Your task to perform on an android device: What's the news in Vietnam? Image 0: 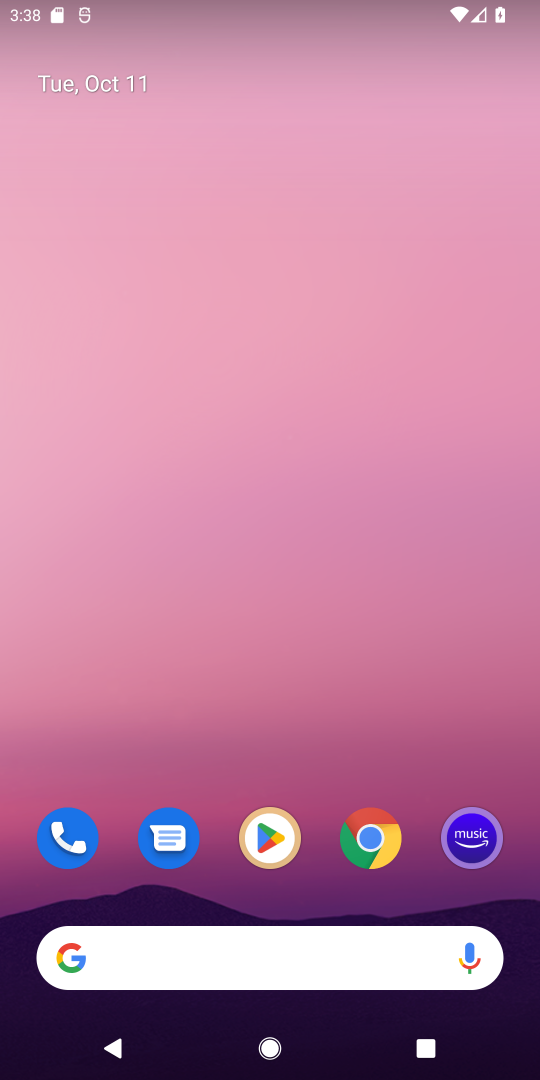
Step 0: click (356, 855)
Your task to perform on an android device: What's the news in Vietnam? Image 1: 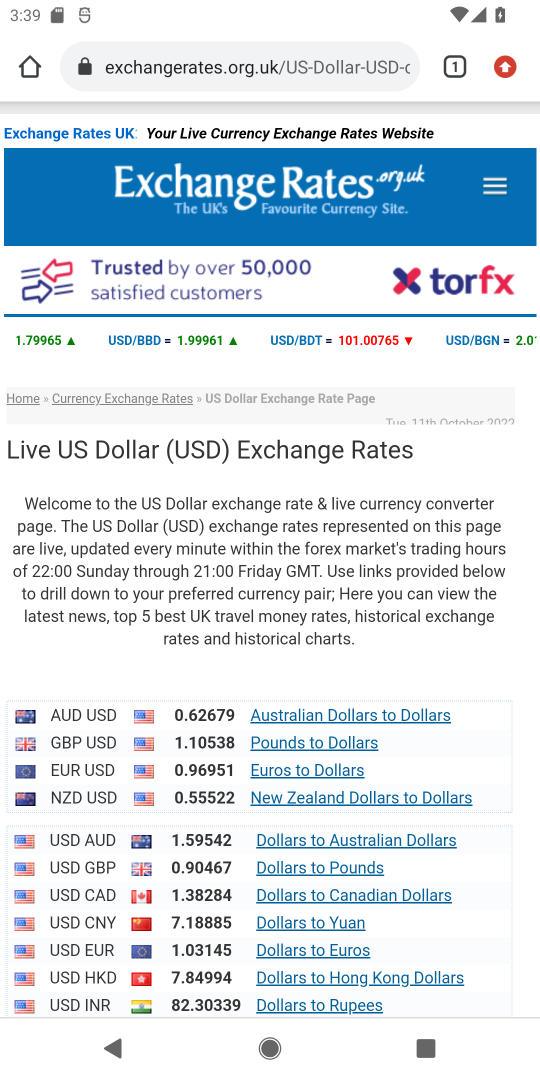
Step 1: click (250, 56)
Your task to perform on an android device: What's the news in Vietnam? Image 2: 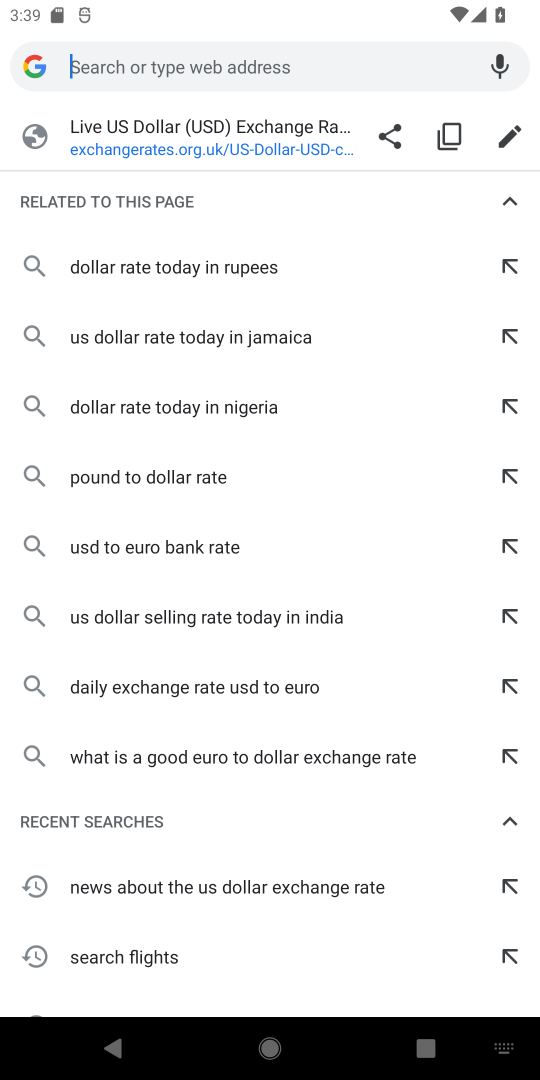
Step 2: type "news in vietnam"
Your task to perform on an android device: What's the news in Vietnam? Image 3: 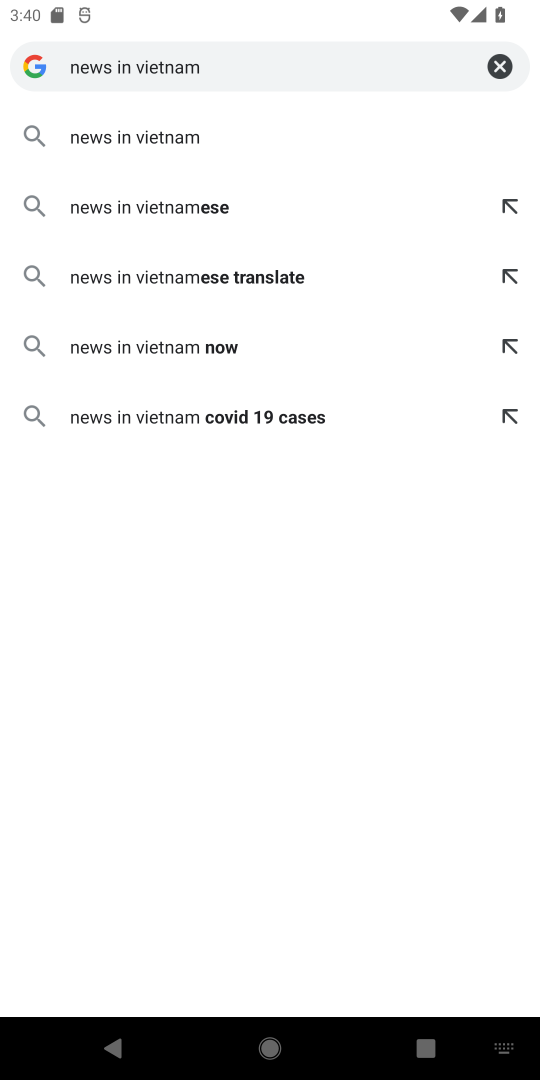
Step 3: click (163, 135)
Your task to perform on an android device: What's the news in Vietnam? Image 4: 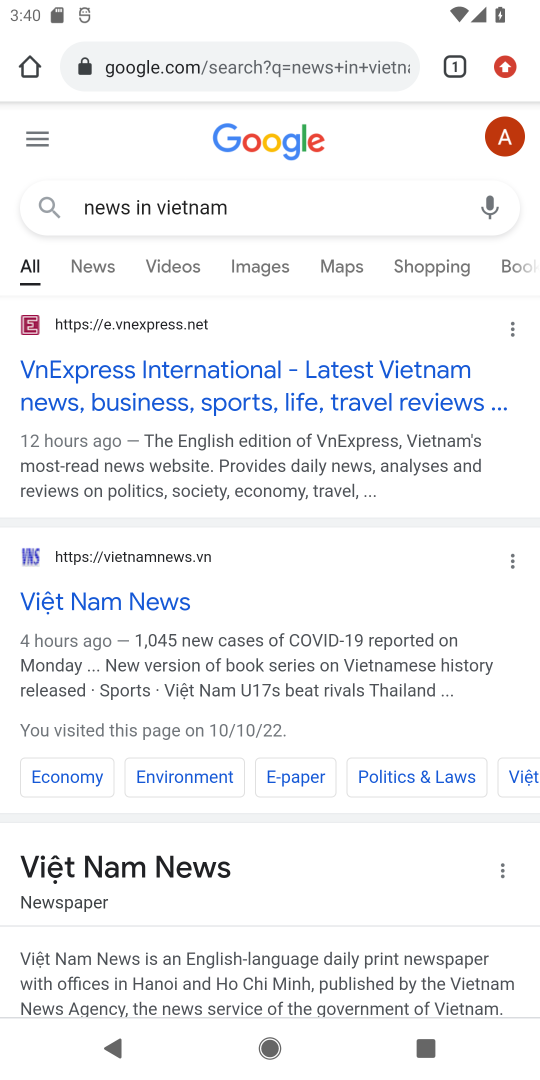
Step 4: drag from (247, 463) to (237, 284)
Your task to perform on an android device: What's the news in Vietnam? Image 5: 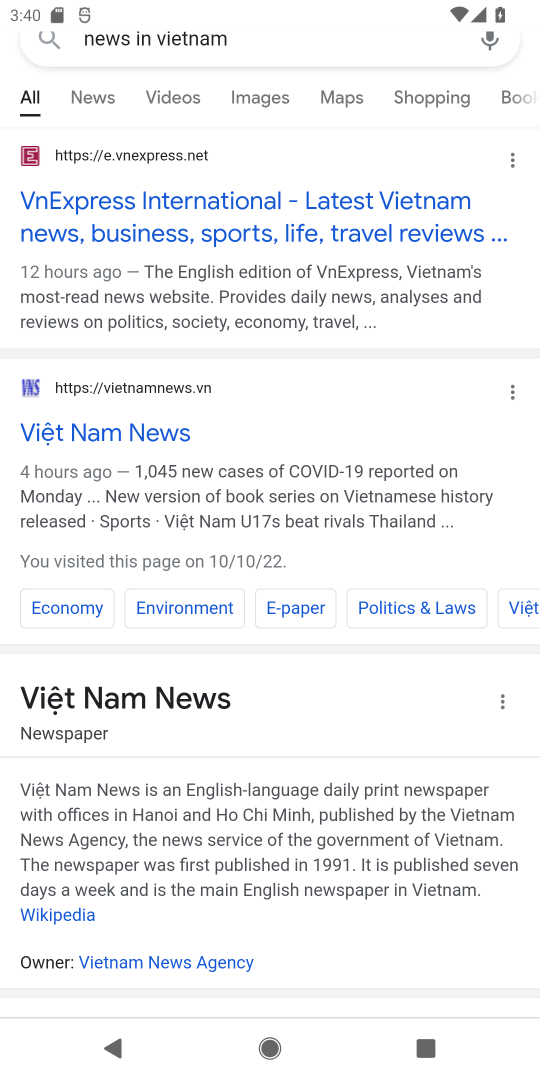
Step 5: drag from (163, 843) to (207, 359)
Your task to perform on an android device: What's the news in Vietnam? Image 6: 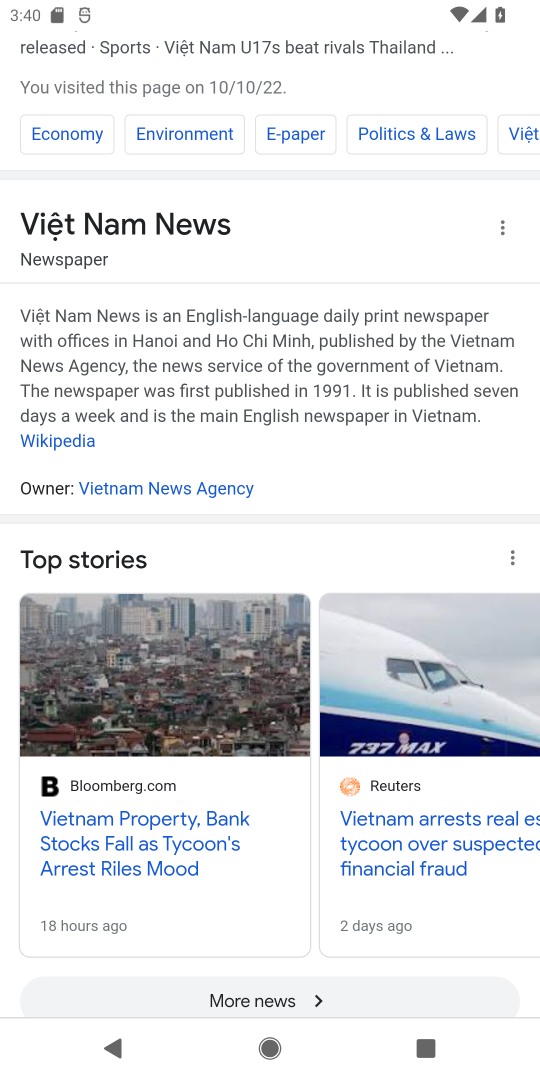
Step 6: click (289, 349)
Your task to perform on an android device: What's the news in Vietnam? Image 7: 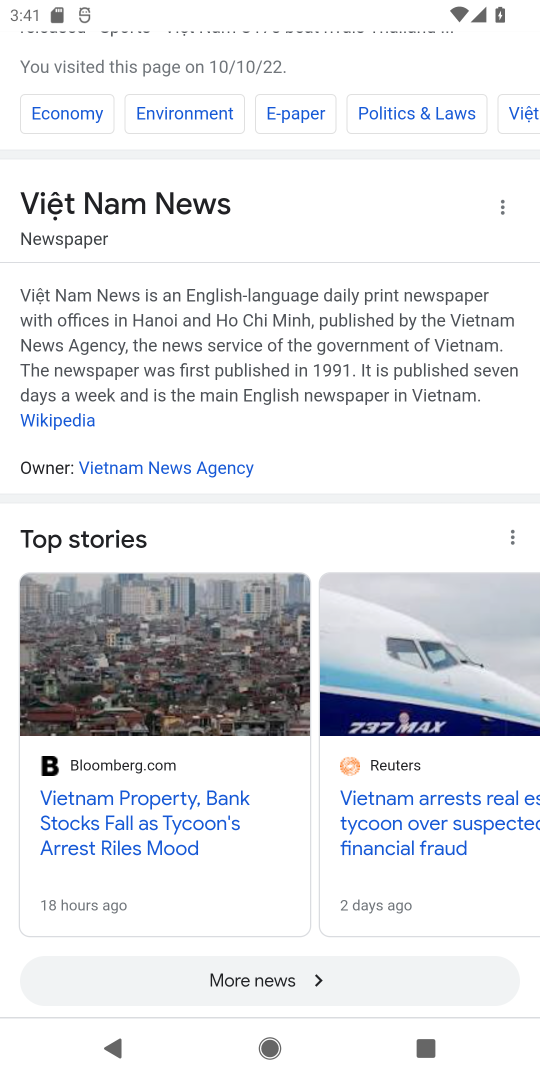
Step 7: drag from (202, 565) to (236, 238)
Your task to perform on an android device: What's the news in Vietnam? Image 8: 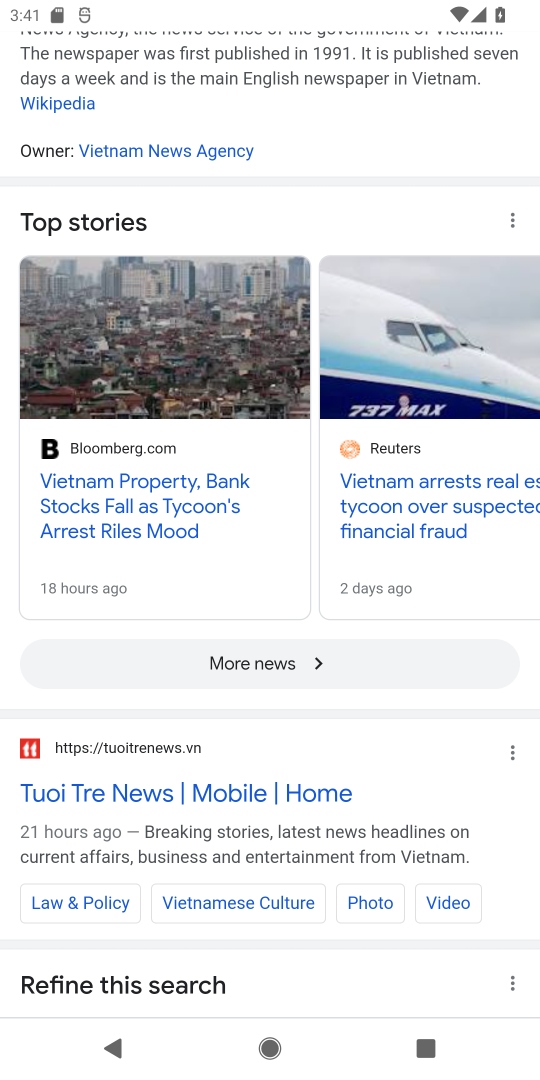
Step 8: drag from (160, 287) to (173, 999)
Your task to perform on an android device: What's the news in Vietnam? Image 9: 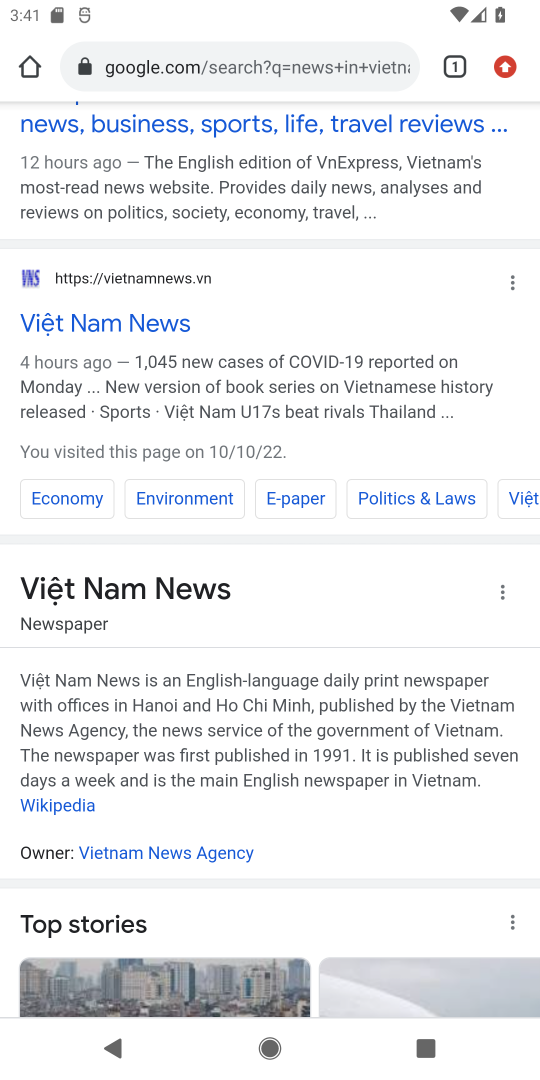
Step 9: click (222, 844)
Your task to perform on an android device: What's the news in Vietnam? Image 10: 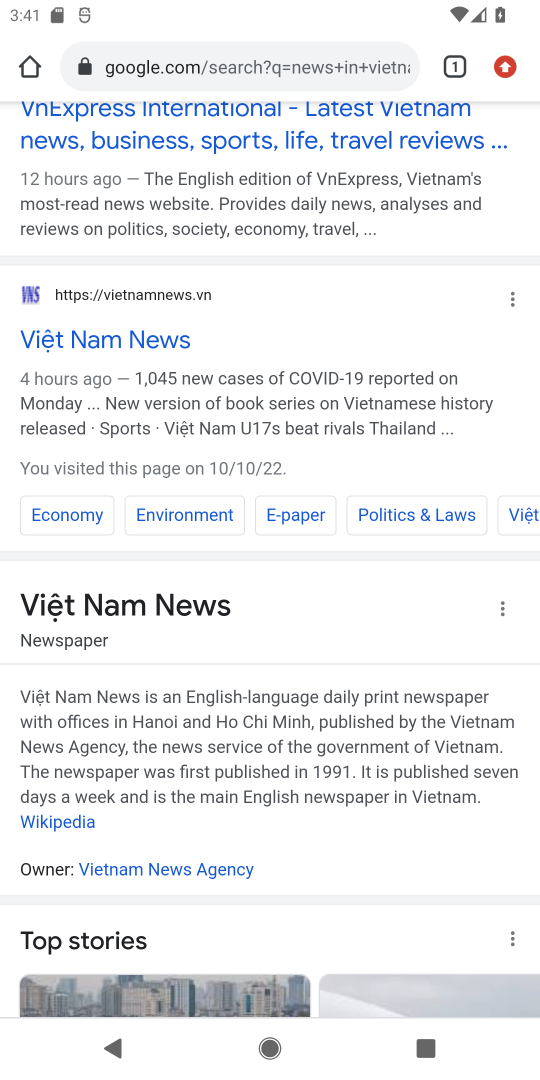
Step 10: task complete